Your task to perform on an android device: Open Android settings Image 0: 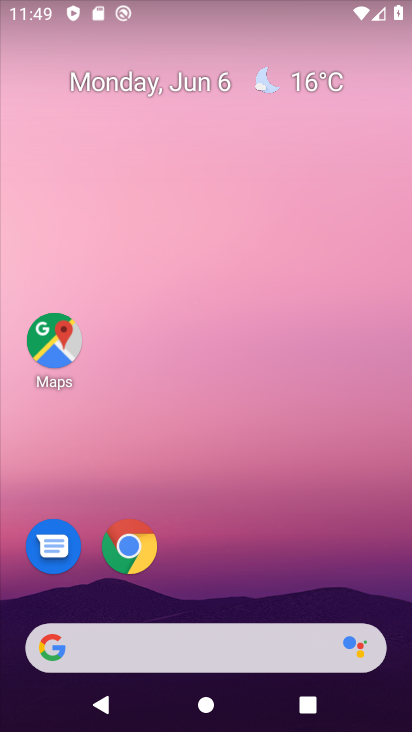
Step 0: click (211, 39)
Your task to perform on an android device: Open Android settings Image 1: 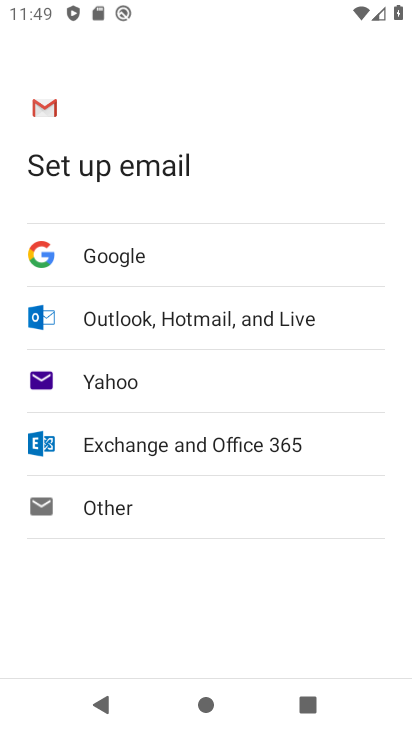
Step 1: drag from (231, 560) to (285, 217)
Your task to perform on an android device: Open Android settings Image 2: 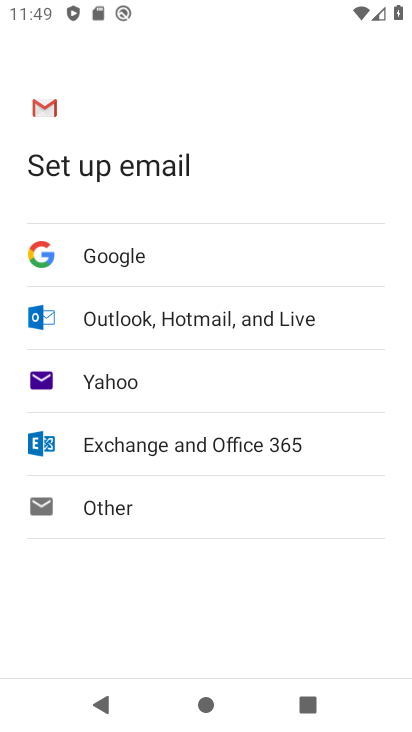
Step 2: press home button
Your task to perform on an android device: Open Android settings Image 3: 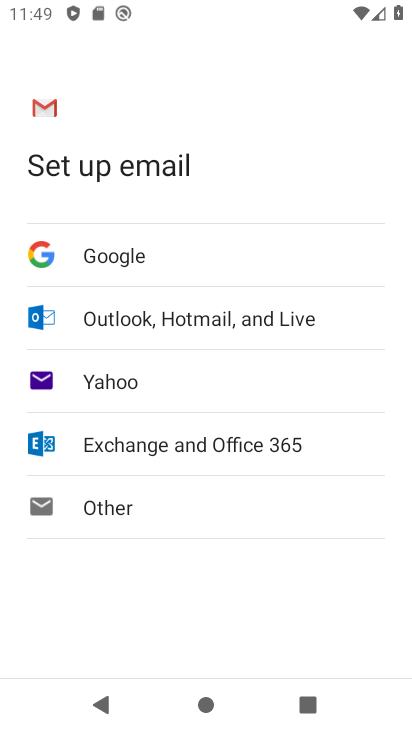
Step 3: drag from (187, 616) to (192, 160)
Your task to perform on an android device: Open Android settings Image 4: 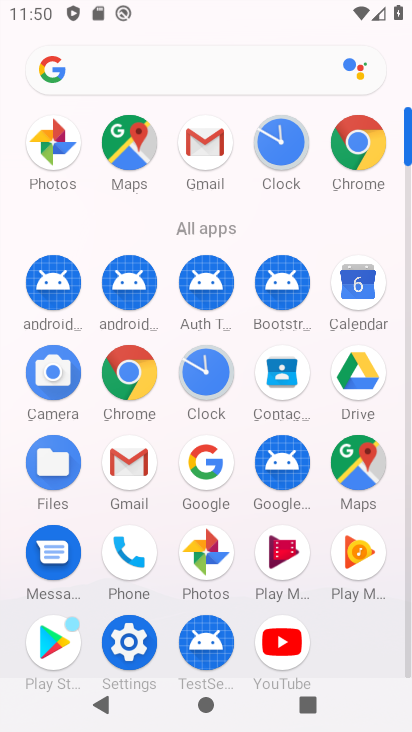
Step 4: click (115, 645)
Your task to perform on an android device: Open Android settings Image 5: 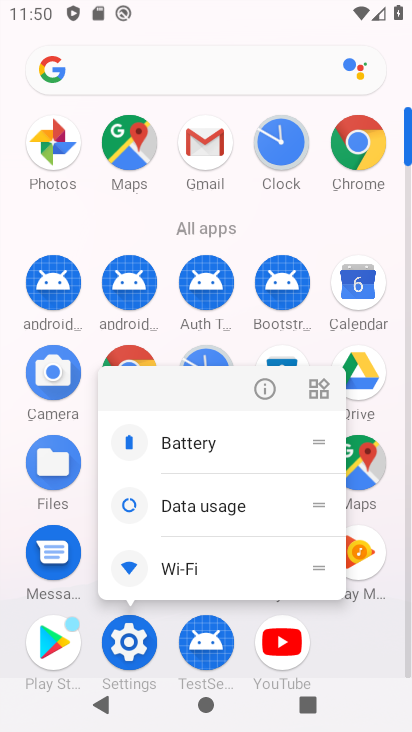
Step 5: click (275, 395)
Your task to perform on an android device: Open Android settings Image 6: 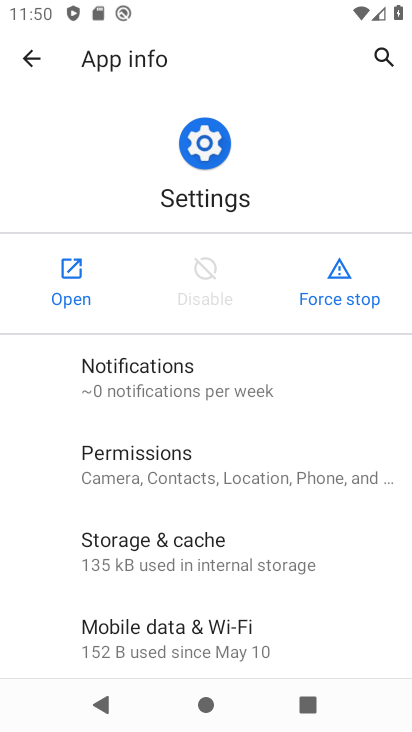
Step 6: click (80, 270)
Your task to perform on an android device: Open Android settings Image 7: 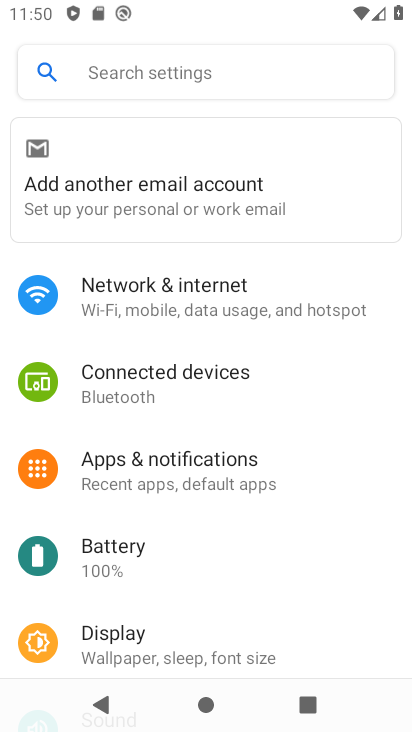
Step 7: drag from (222, 488) to (405, 195)
Your task to perform on an android device: Open Android settings Image 8: 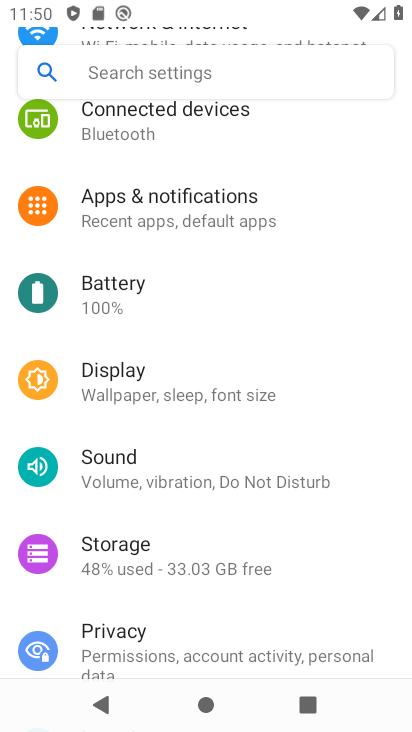
Step 8: drag from (160, 557) to (28, 97)
Your task to perform on an android device: Open Android settings Image 9: 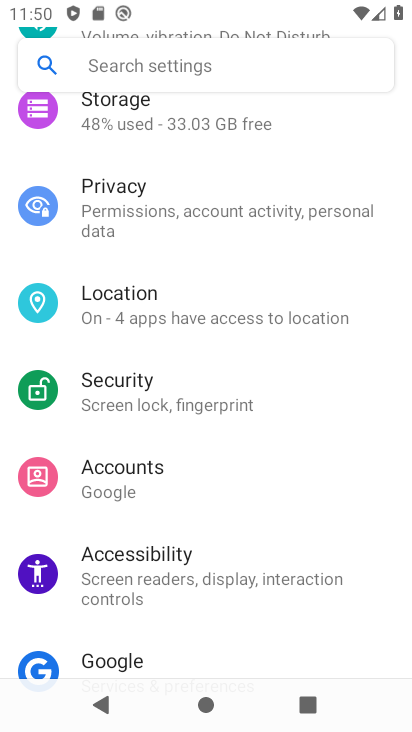
Step 9: drag from (129, 636) to (174, 0)
Your task to perform on an android device: Open Android settings Image 10: 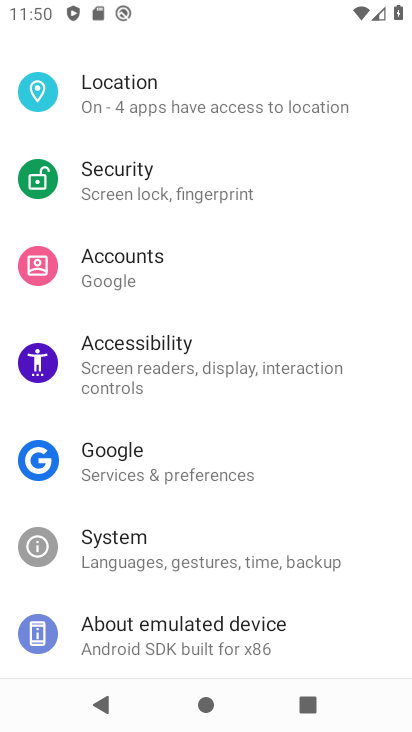
Step 10: click (192, 625)
Your task to perform on an android device: Open Android settings Image 11: 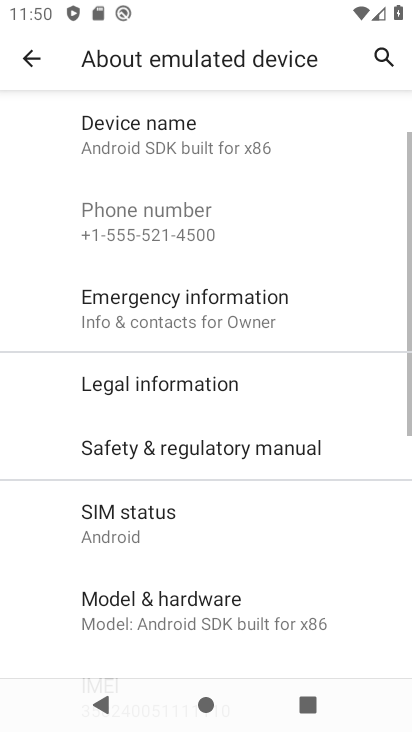
Step 11: drag from (205, 418) to (185, 7)
Your task to perform on an android device: Open Android settings Image 12: 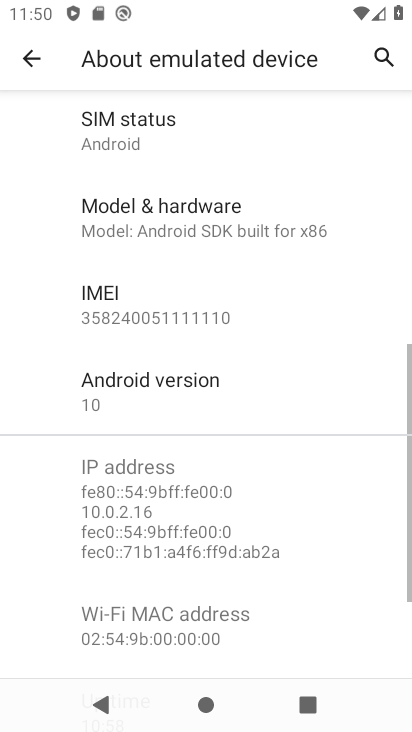
Step 12: click (171, 374)
Your task to perform on an android device: Open Android settings Image 13: 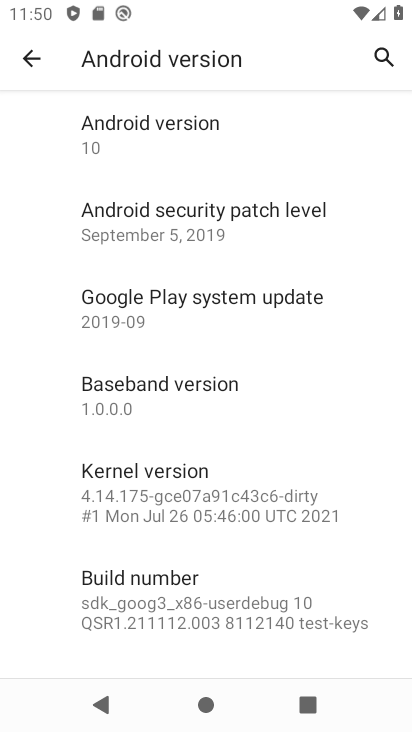
Step 13: drag from (139, 520) to (161, 131)
Your task to perform on an android device: Open Android settings Image 14: 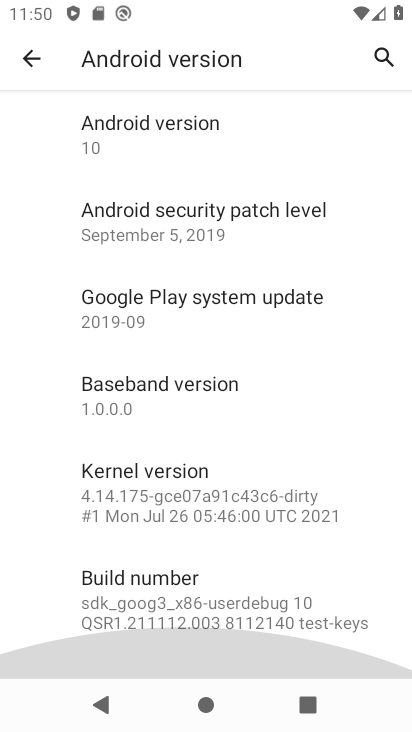
Step 14: drag from (160, 129) to (181, 651)
Your task to perform on an android device: Open Android settings Image 15: 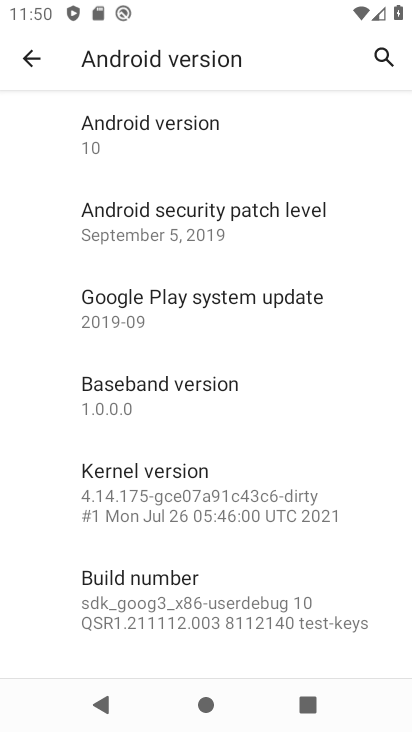
Step 15: click (153, 136)
Your task to perform on an android device: Open Android settings Image 16: 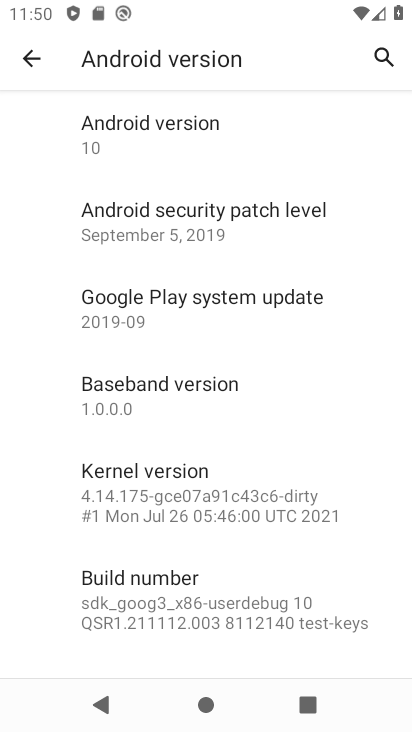
Step 16: task complete